Your task to perform on an android device: Open my contact list Image 0: 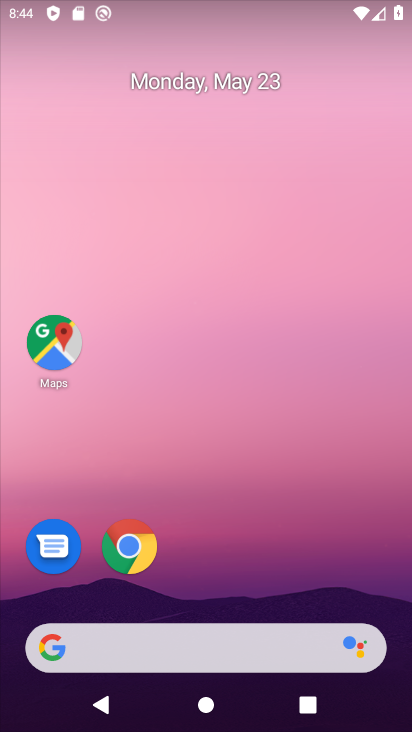
Step 0: drag from (262, 510) to (92, 74)
Your task to perform on an android device: Open my contact list Image 1: 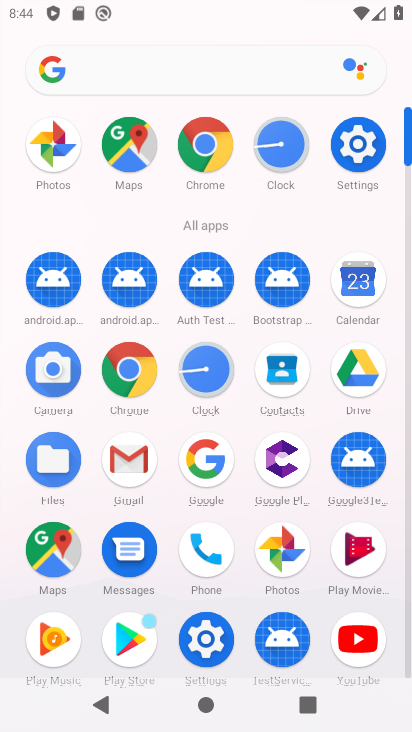
Step 1: click (285, 381)
Your task to perform on an android device: Open my contact list Image 2: 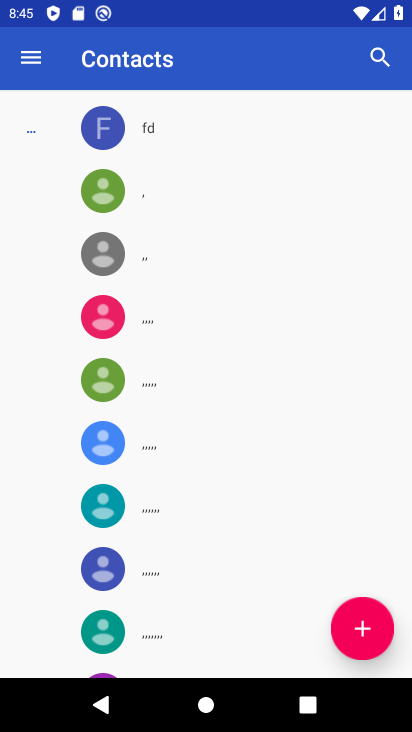
Step 2: task complete